Your task to perform on an android device: Go to ESPN.com Image 0: 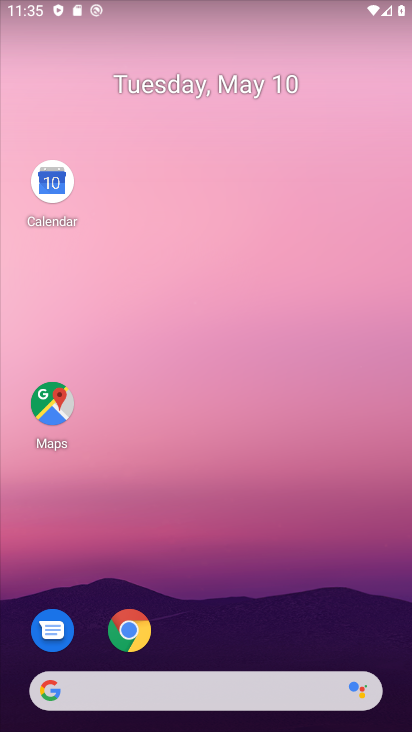
Step 0: click (136, 634)
Your task to perform on an android device: Go to ESPN.com Image 1: 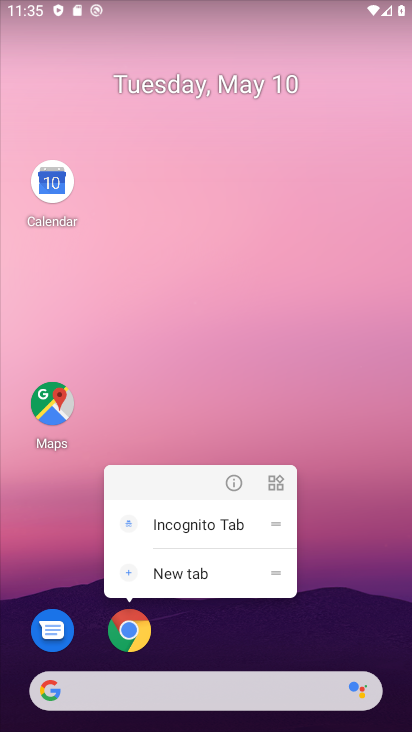
Step 1: click (141, 630)
Your task to perform on an android device: Go to ESPN.com Image 2: 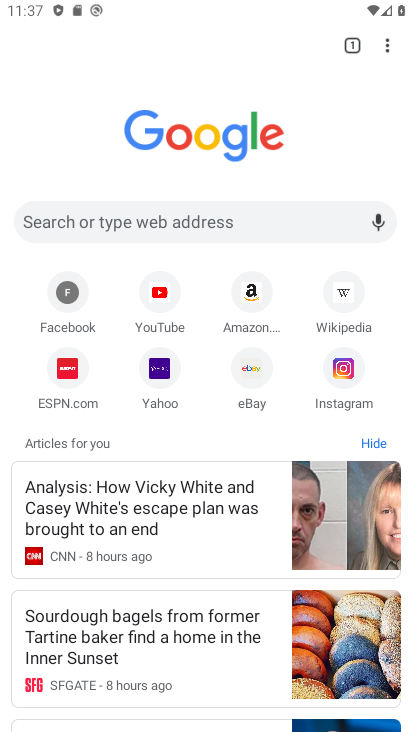
Step 2: click (62, 375)
Your task to perform on an android device: Go to ESPN.com Image 3: 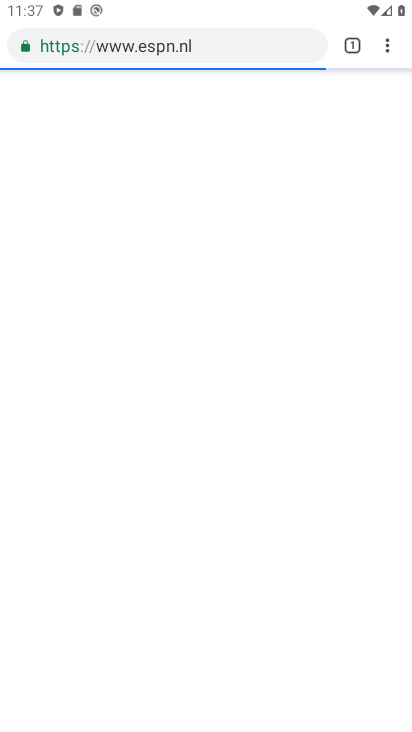
Step 3: task complete